Your task to perform on an android device: turn pop-ups off in chrome Image 0: 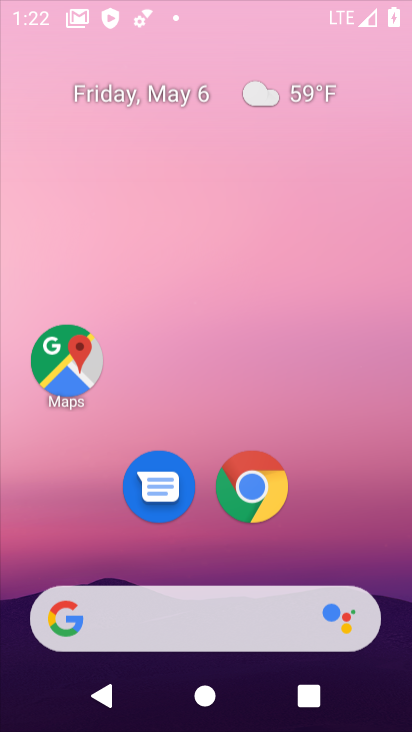
Step 0: drag from (270, 374) to (297, 249)
Your task to perform on an android device: turn pop-ups off in chrome Image 1: 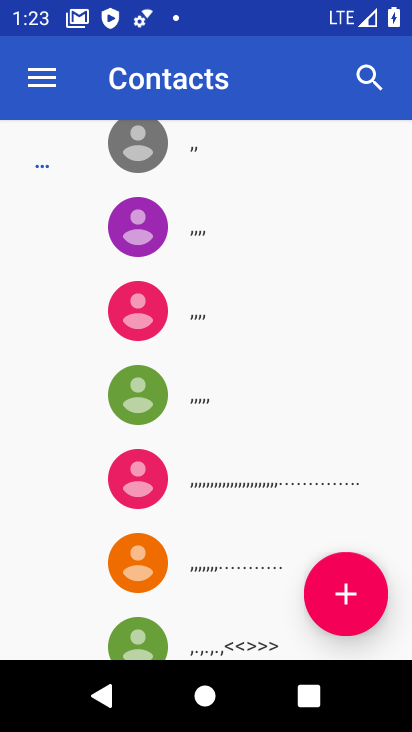
Step 1: press home button
Your task to perform on an android device: turn pop-ups off in chrome Image 2: 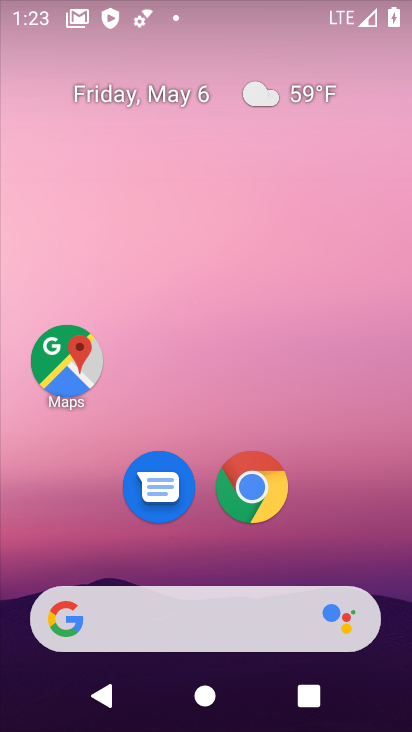
Step 2: drag from (244, 537) to (292, 144)
Your task to perform on an android device: turn pop-ups off in chrome Image 3: 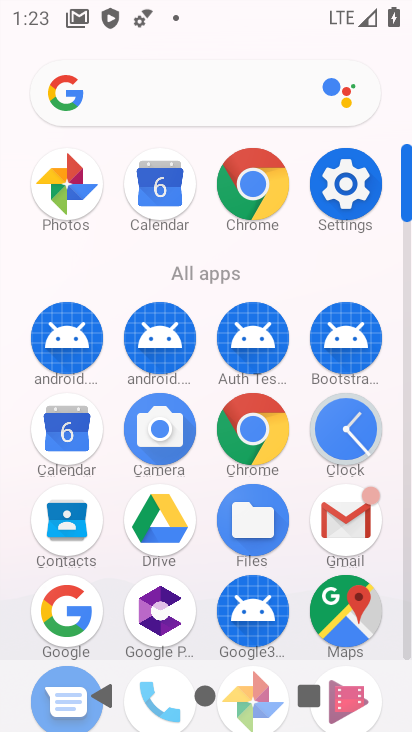
Step 3: click (249, 206)
Your task to perform on an android device: turn pop-ups off in chrome Image 4: 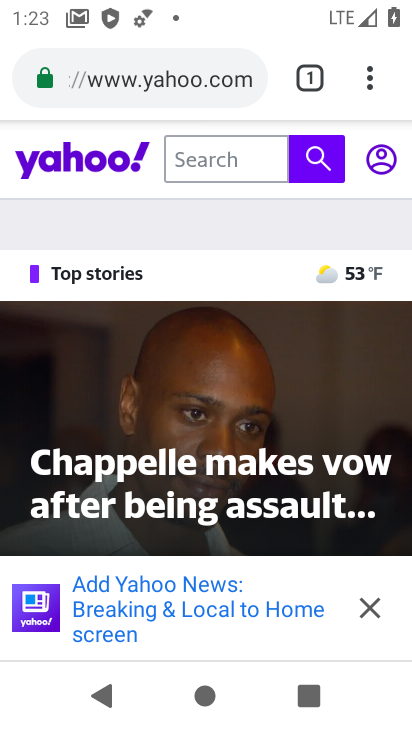
Step 4: click (366, 78)
Your task to perform on an android device: turn pop-ups off in chrome Image 5: 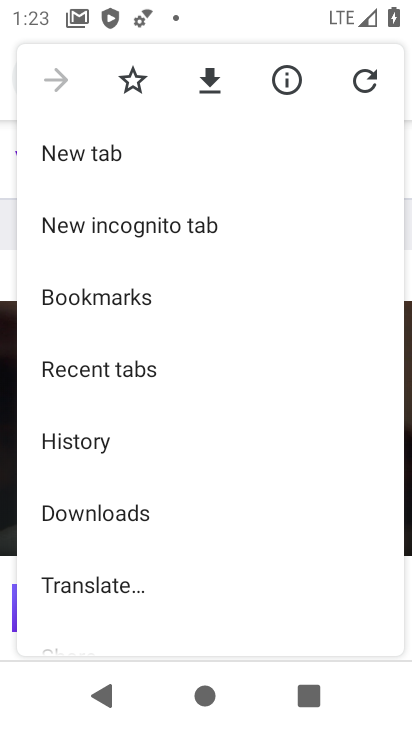
Step 5: drag from (208, 494) to (271, 89)
Your task to perform on an android device: turn pop-ups off in chrome Image 6: 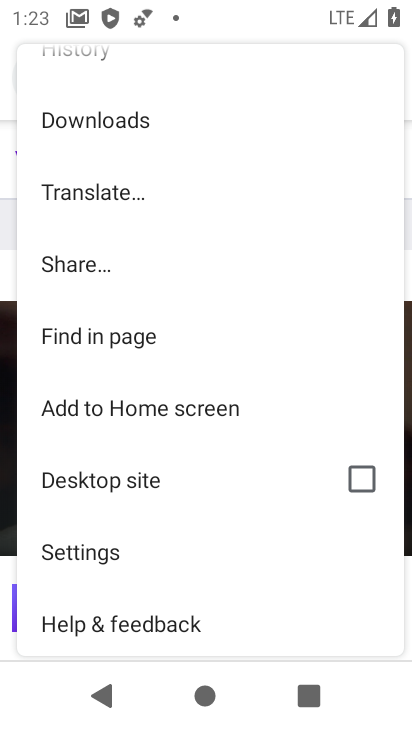
Step 6: drag from (165, 536) to (211, 181)
Your task to perform on an android device: turn pop-ups off in chrome Image 7: 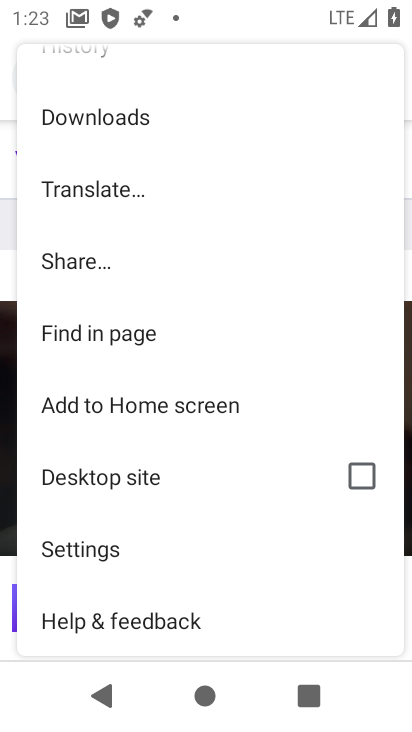
Step 7: click (106, 552)
Your task to perform on an android device: turn pop-ups off in chrome Image 8: 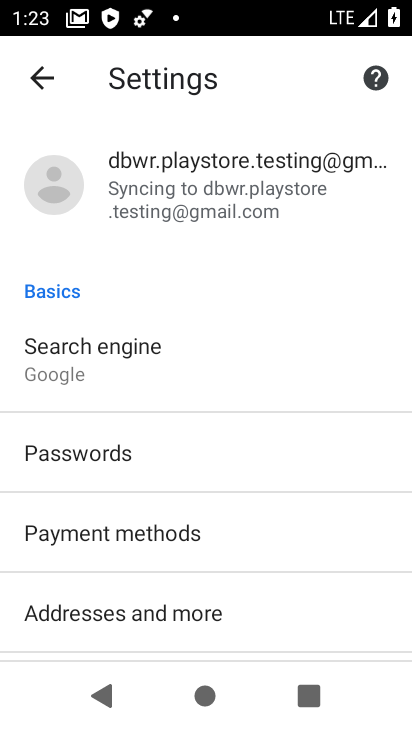
Step 8: drag from (237, 575) to (241, 259)
Your task to perform on an android device: turn pop-ups off in chrome Image 9: 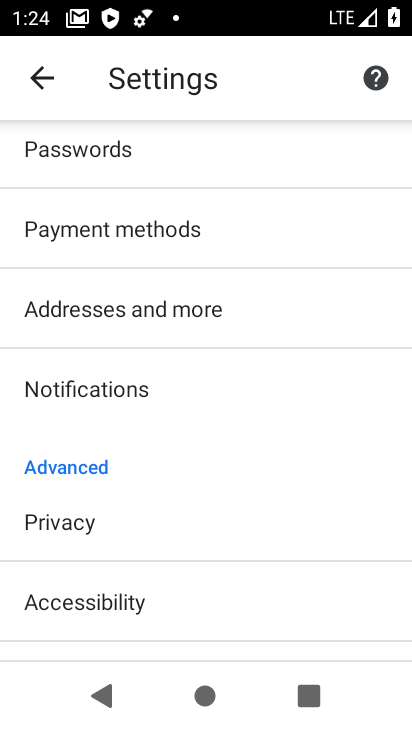
Step 9: drag from (145, 576) to (176, 388)
Your task to perform on an android device: turn pop-ups off in chrome Image 10: 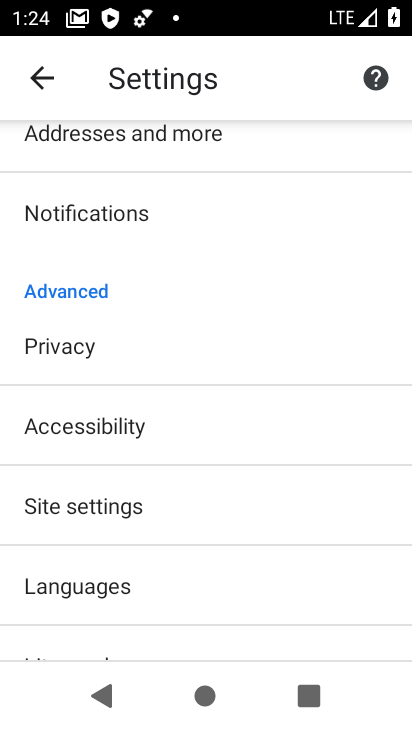
Step 10: click (111, 505)
Your task to perform on an android device: turn pop-ups off in chrome Image 11: 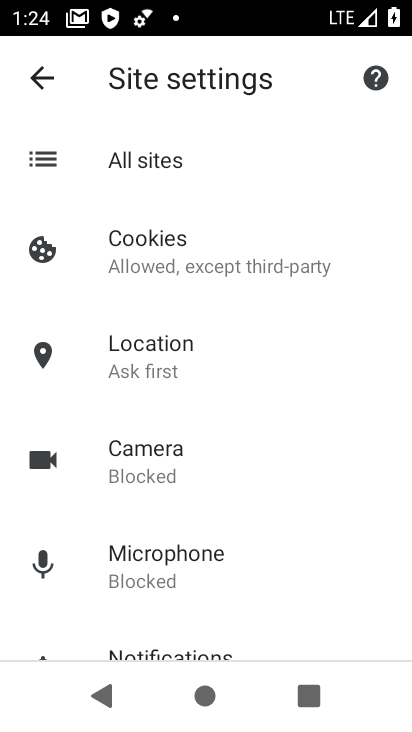
Step 11: drag from (177, 527) to (188, 331)
Your task to perform on an android device: turn pop-ups off in chrome Image 12: 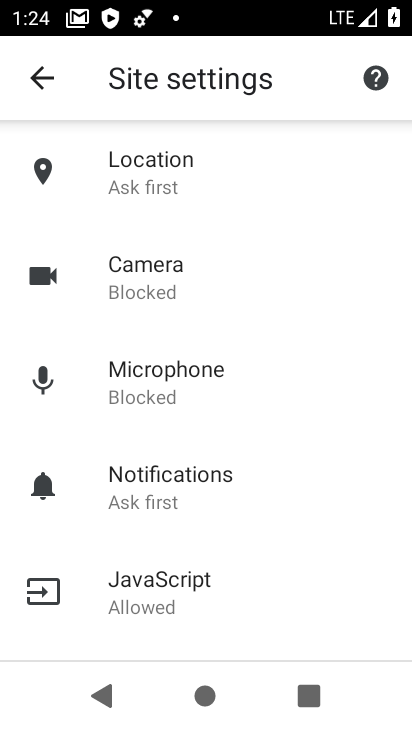
Step 12: drag from (217, 506) to (227, 277)
Your task to perform on an android device: turn pop-ups off in chrome Image 13: 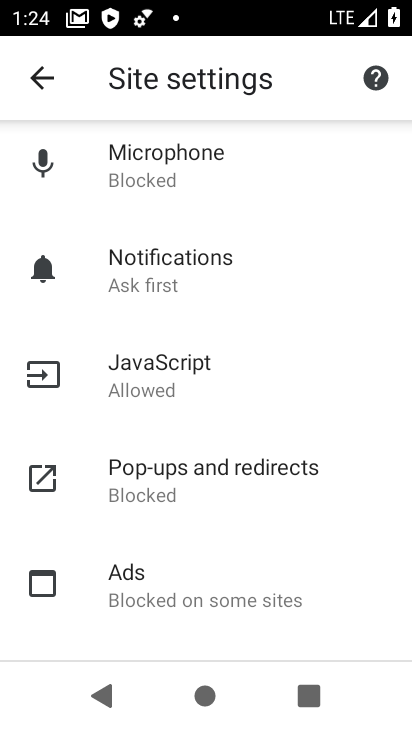
Step 13: click (219, 482)
Your task to perform on an android device: turn pop-ups off in chrome Image 14: 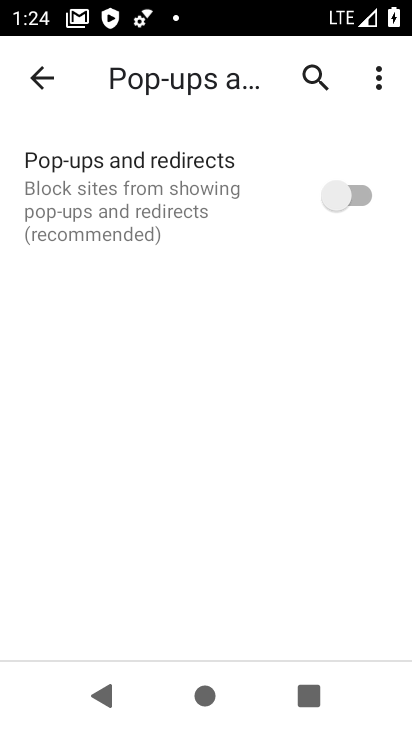
Step 14: task complete